Your task to perform on an android device: Go to sound settings Image 0: 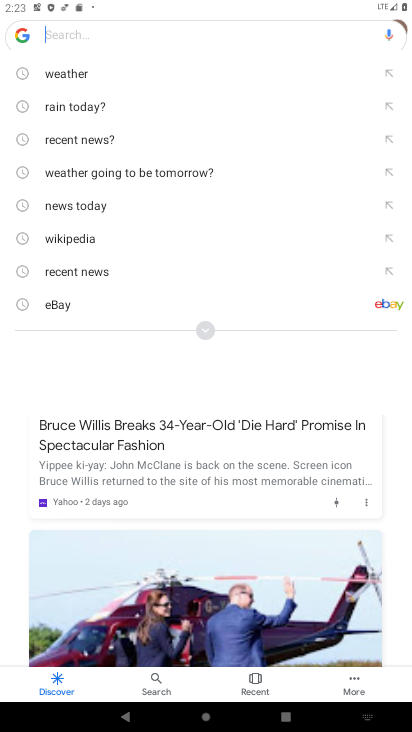
Step 0: press back button
Your task to perform on an android device: Go to sound settings Image 1: 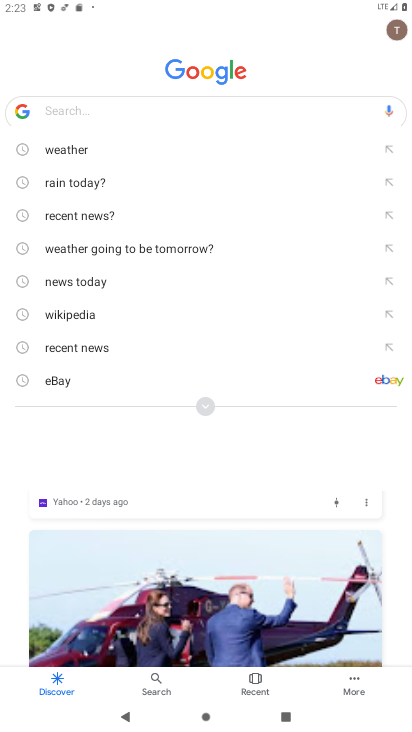
Step 1: press home button
Your task to perform on an android device: Go to sound settings Image 2: 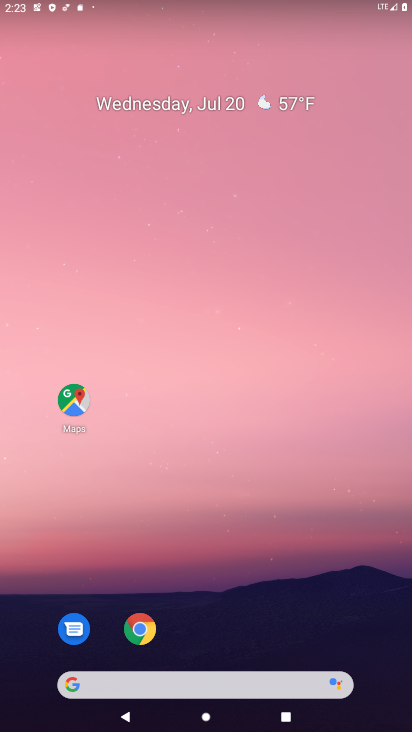
Step 2: drag from (180, 680) to (205, 63)
Your task to perform on an android device: Go to sound settings Image 3: 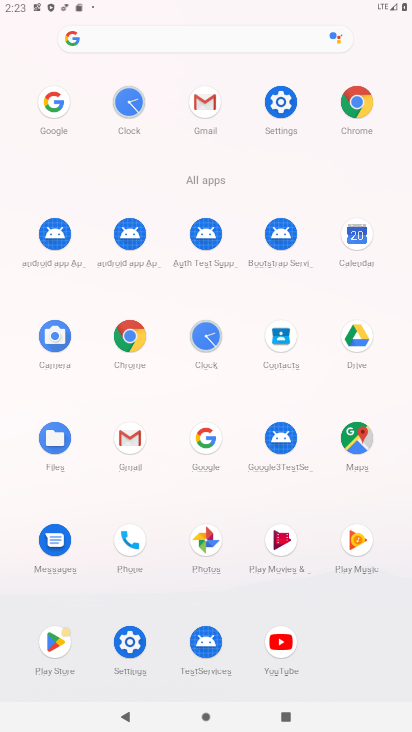
Step 3: click (283, 107)
Your task to perform on an android device: Go to sound settings Image 4: 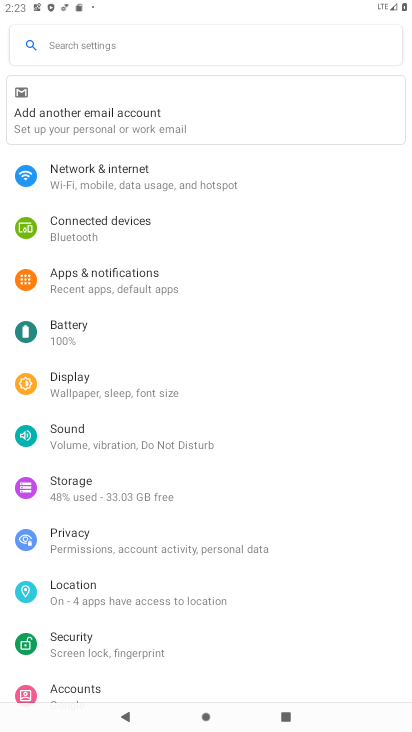
Step 4: click (100, 428)
Your task to perform on an android device: Go to sound settings Image 5: 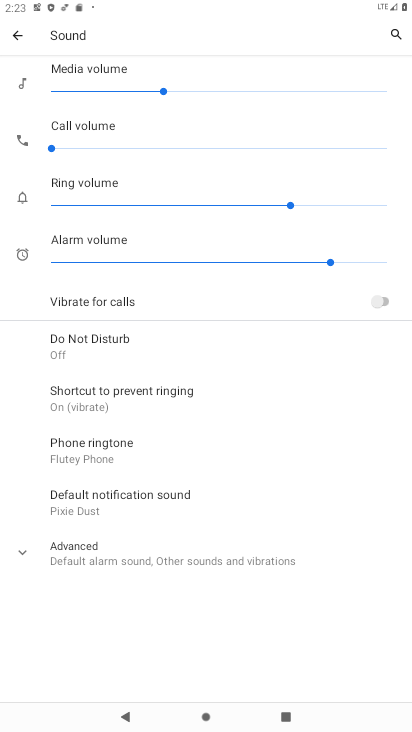
Step 5: task complete